Your task to perform on an android device: Go to CNN.com Image 0: 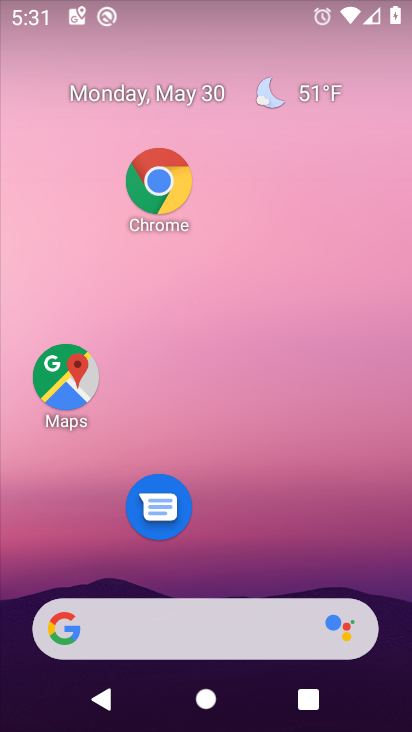
Step 0: press home button
Your task to perform on an android device: Go to CNN.com Image 1: 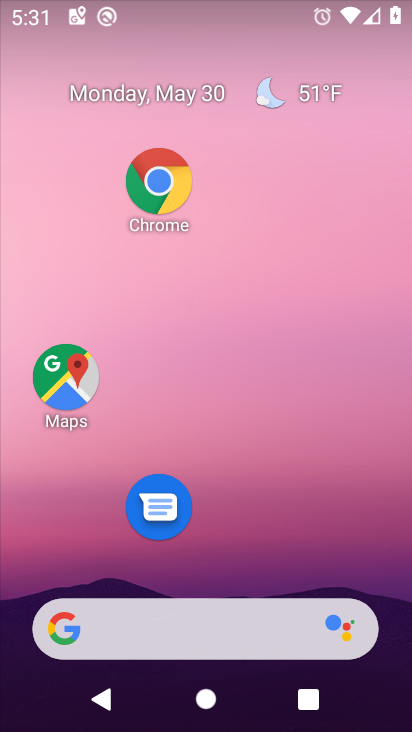
Step 1: drag from (317, 520) to (271, 6)
Your task to perform on an android device: Go to CNN.com Image 2: 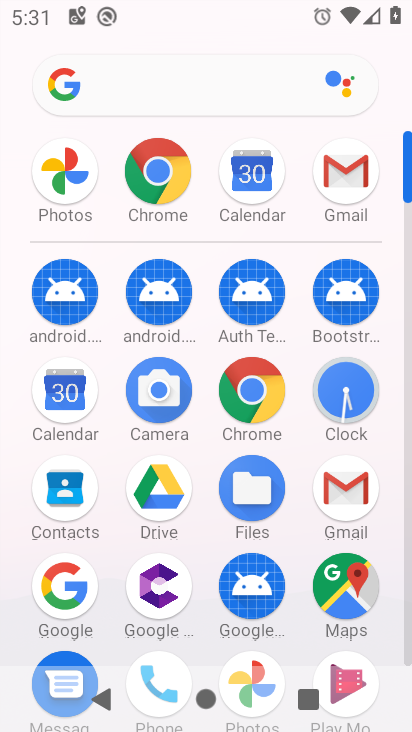
Step 2: click (404, 634)
Your task to perform on an android device: Go to CNN.com Image 3: 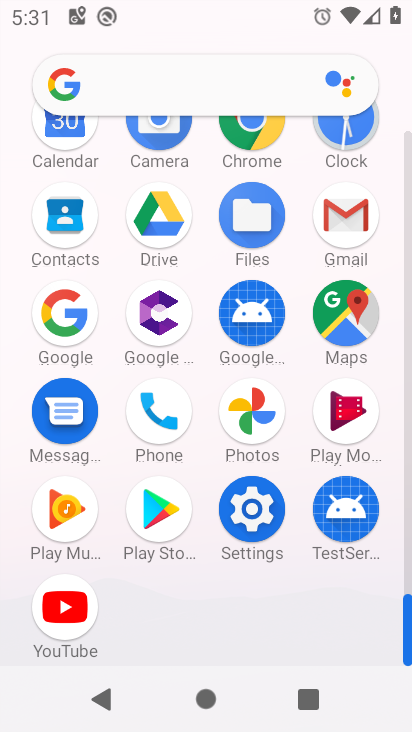
Step 3: drag from (392, 166) to (313, 661)
Your task to perform on an android device: Go to CNN.com Image 4: 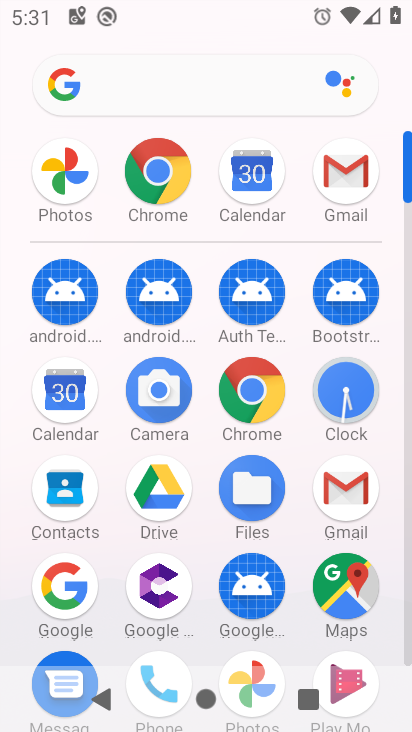
Step 4: drag from (301, 590) to (259, 314)
Your task to perform on an android device: Go to CNN.com Image 5: 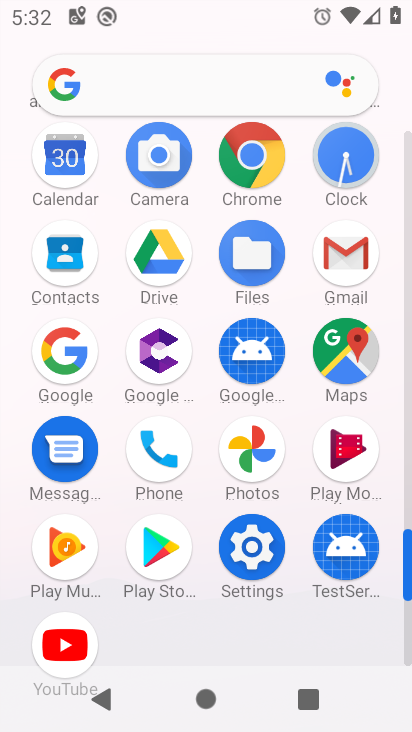
Step 5: click (263, 167)
Your task to perform on an android device: Go to CNN.com Image 6: 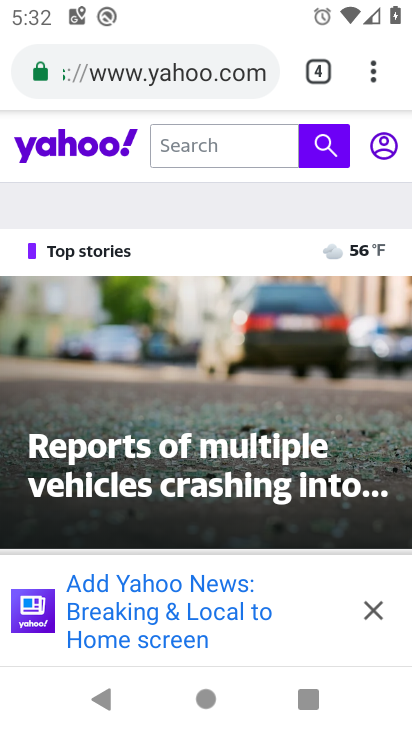
Step 6: click (229, 78)
Your task to perform on an android device: Go to CNN.com Image 7: 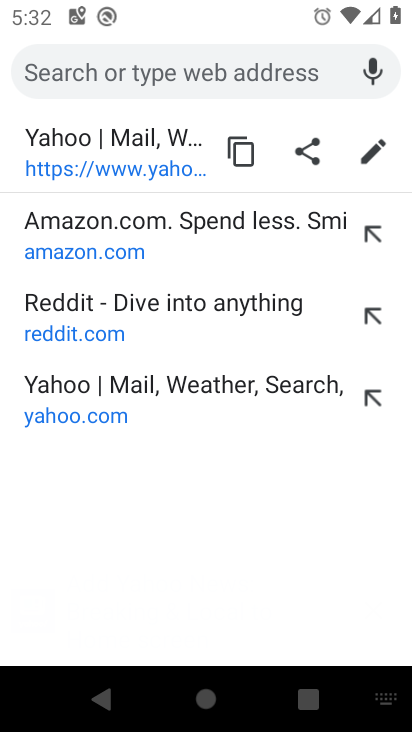
Step 7: type " CNN.com"
Your task to perform on an android device: Go to CNN.com Image 8: 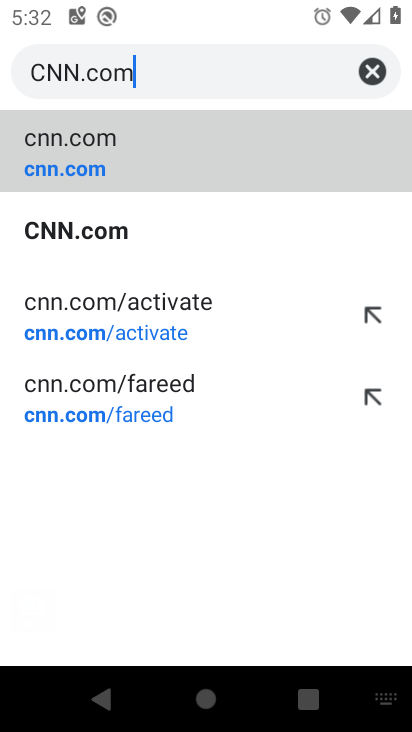
Step 8: click (57, 114)
Your task to perform on an android device: Go to CNN.com Image 9: 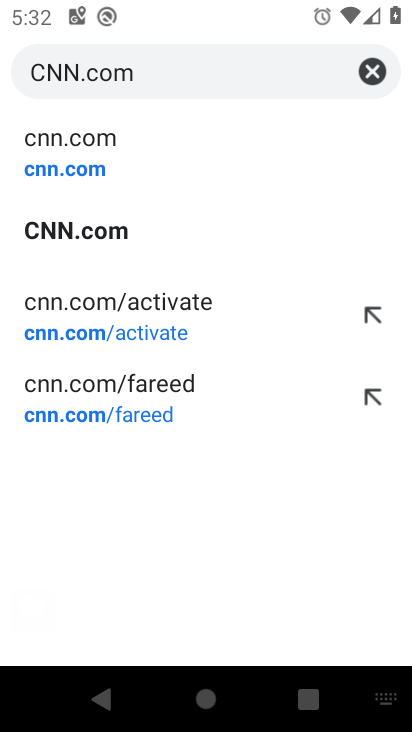
Step 9: click (138, 163)
Your task to perform on an android device: Go to CNN.com Image 10: 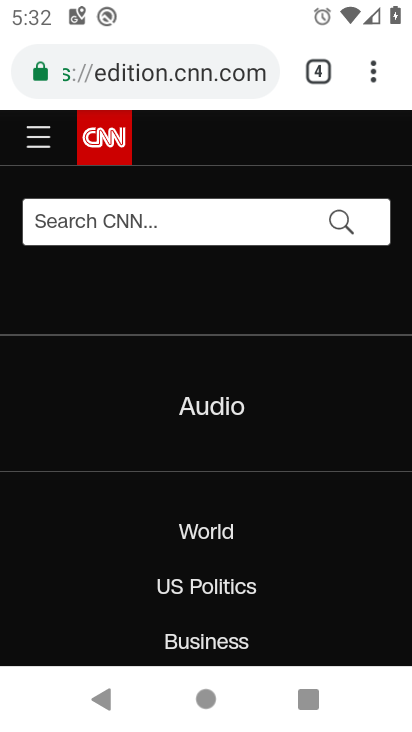
Step 10: task complete